Your task to perform on an android device: turn notification dots off Image 0: 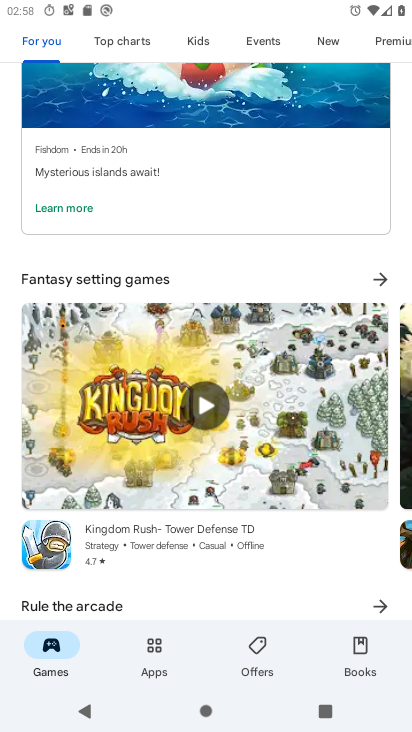
Step 0: drag from (127, 597) to (243, 85)
Your task to perform on an android device: turn notification dots off Image 1: 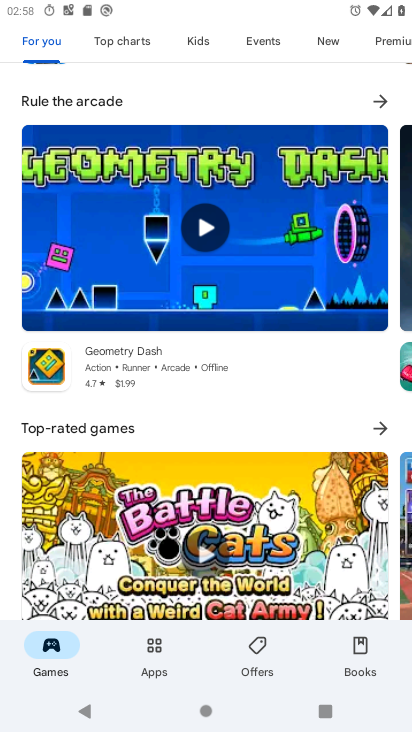
Step 1: press home button
Your task to perform on an android device: turn notification dots off Image 2: 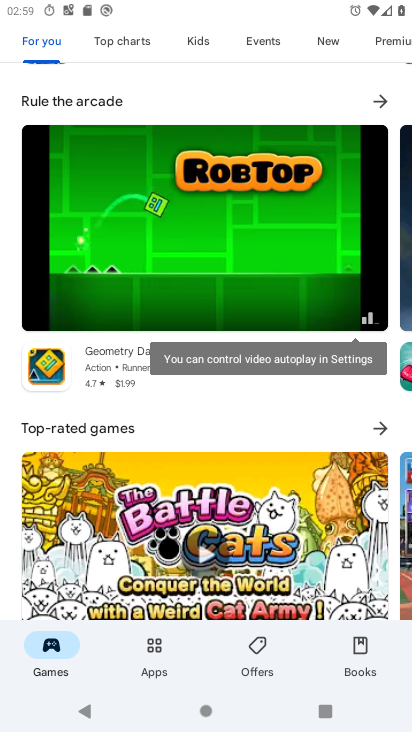
Step 2: press home button
Your task to perform on an android device: turn notification dots off Image 3: 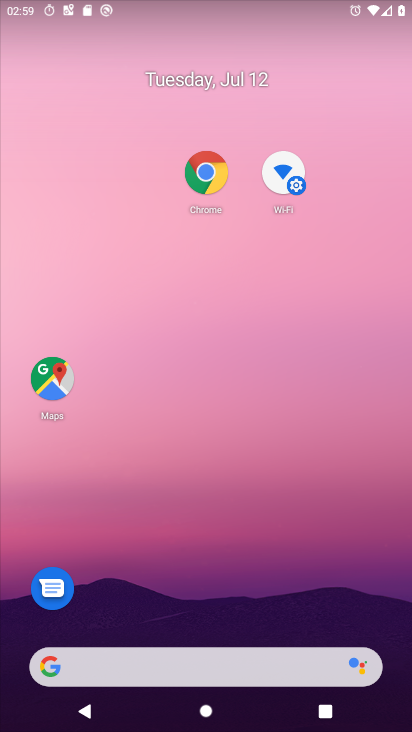
Step 3: drag from (170, 602) to (250, 5)
Your task to perform on an android device: turn notification dots off Image 4: 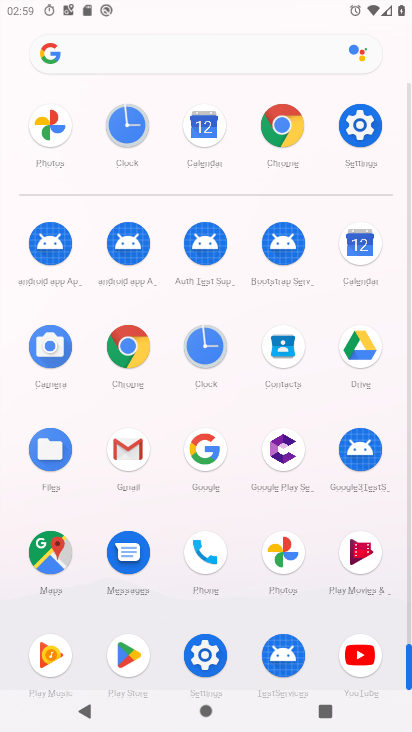
Step 4: click (356, 124)
Your task to perform on an android device: turn notification dots off Image 5: 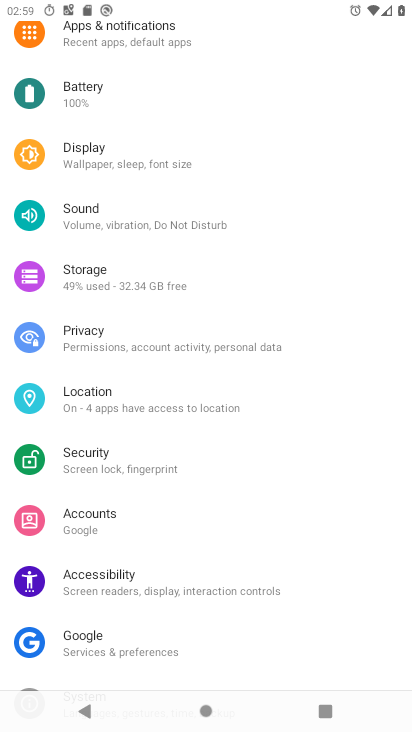
Step 5: drag from (153, 547) to (267, 187)
Your task to perform on an android device: turn notification dots off Image 6: 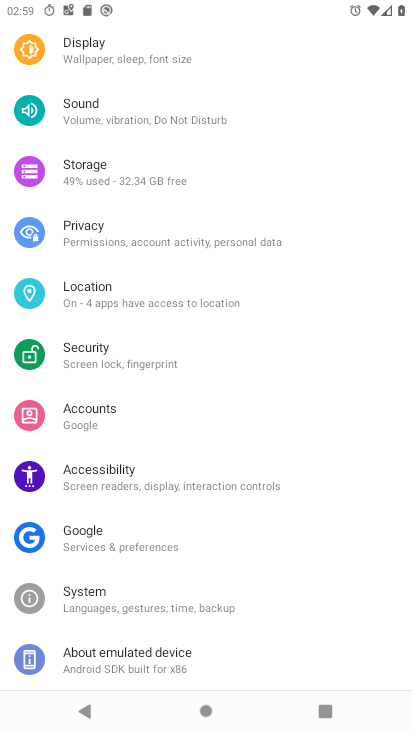
Step 6: drag from (145, 126) to (242, 571)
Your task to perform on an android device: turn notification dots off Image 7: 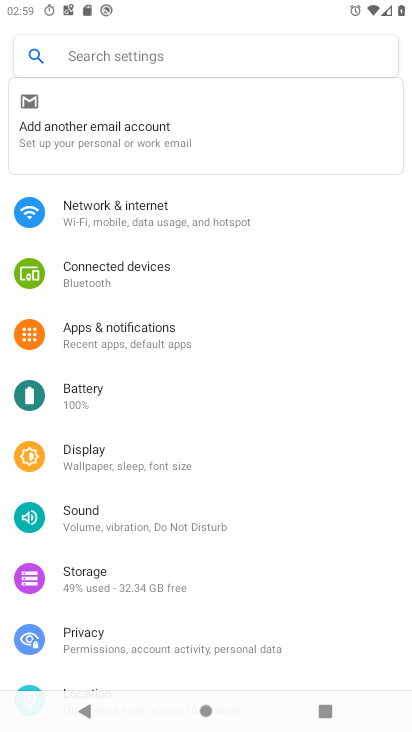
Step 7: click (114, 339)
Your task to perform on an android device: turn notification dots off Image 8: 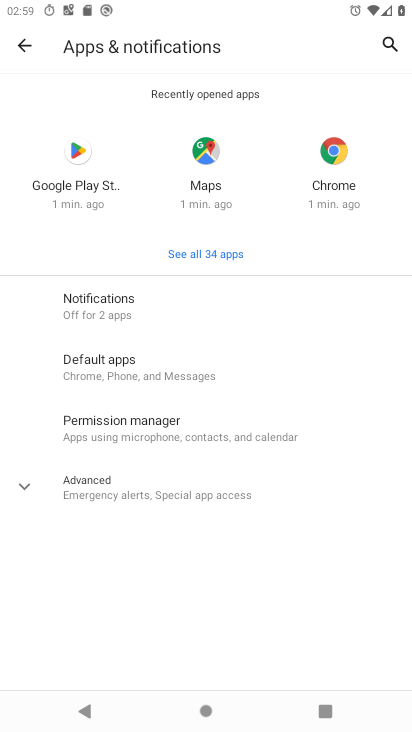
Step 8: click (168, 298)
Your task to perform on an android device: turn notification dots off Image 9: 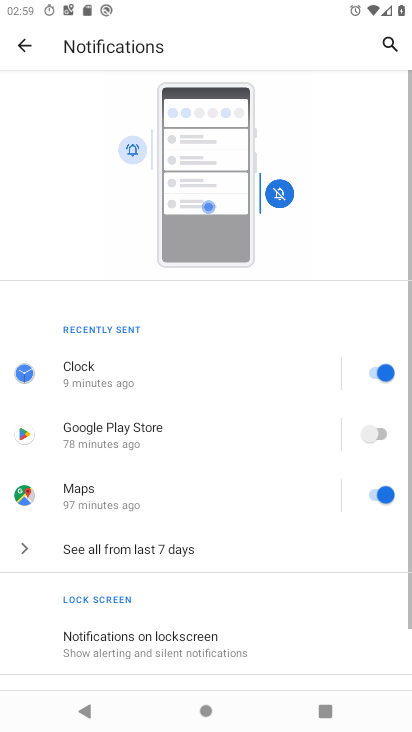
Step 9: drag from (193, 587) to (245, 218)
Your task to perform on an android device: turn notification dots off Image 10: 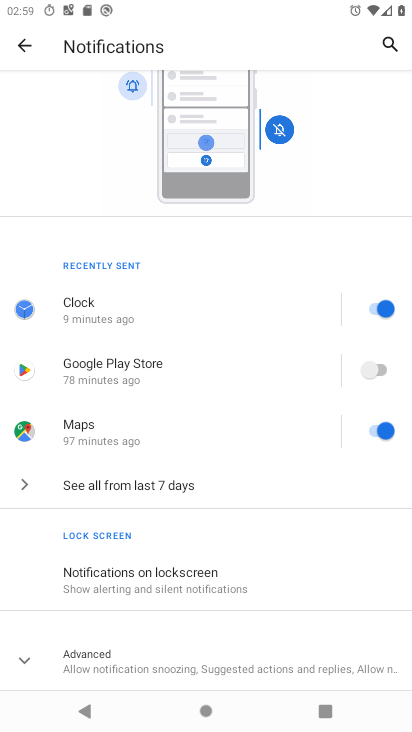
Step 10: click (150, 664)
Your task to perform on an android device: turn notification dots off Image 11: 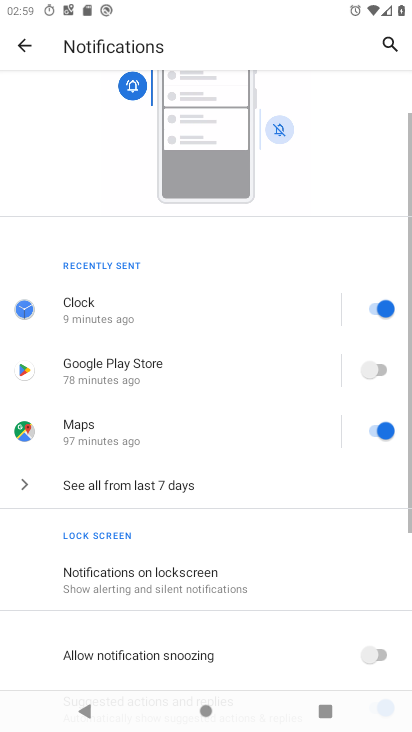
Step 11: drag from (152, 640) to (222, 245)
Your task to perform on an android device: turn notification dots off Image 12: 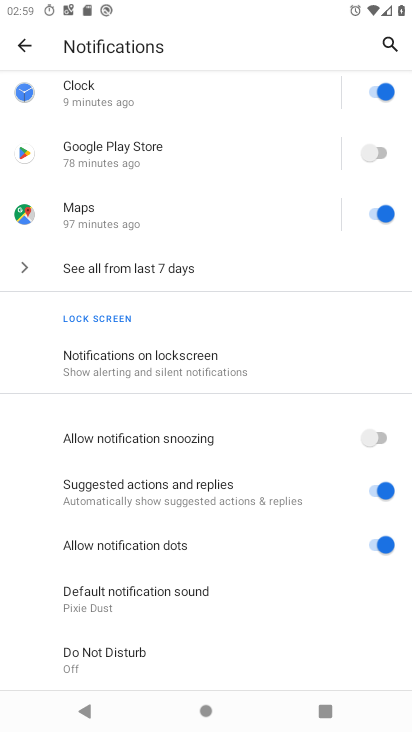
Step 12: click (378, 542)
Your task to perform on an android device: turn notification dots off Image 13: 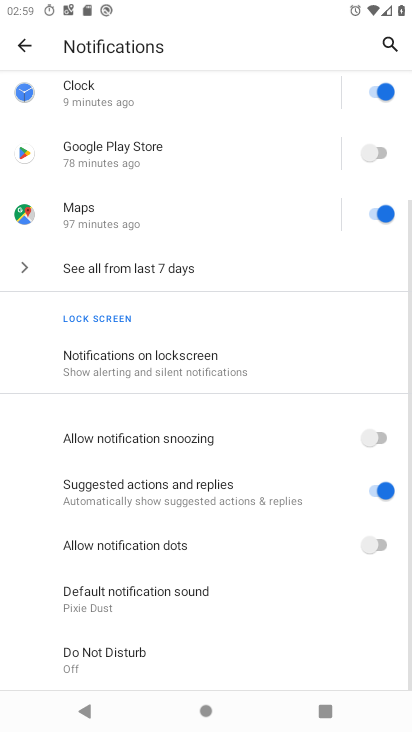
Step 13: task complete